Your task to perform on an android device: see tabs open on other devices in the chrome app Image 0: 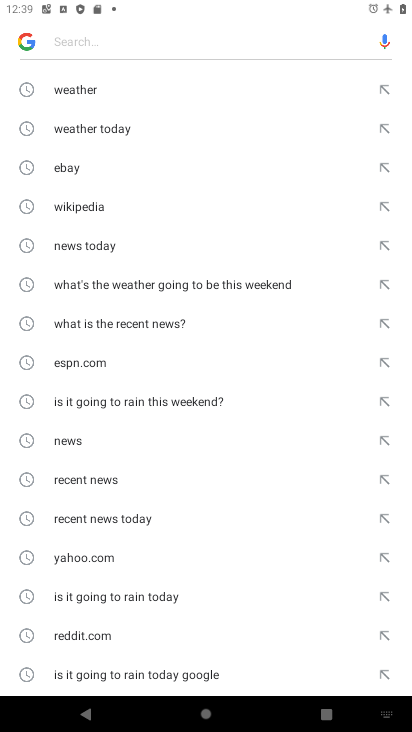
Step 0: press home button
Your task to perform on an android device: see tabs open on other devices in the chrome app Image 1: 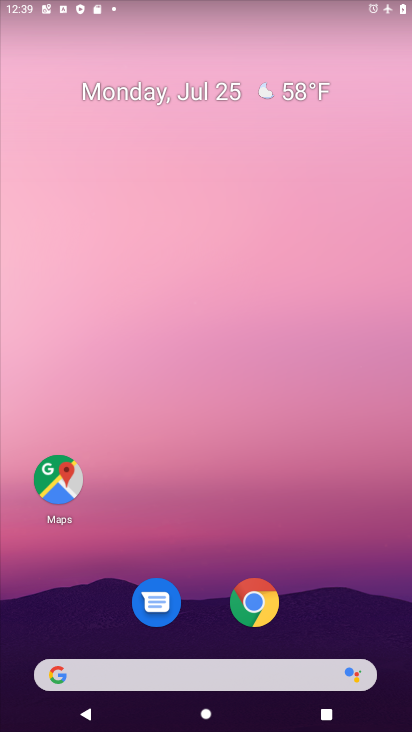
Step 1: click (271, 624)
Your task to perform on an android device: see tabs open on other devices in the chrome app Image 2: 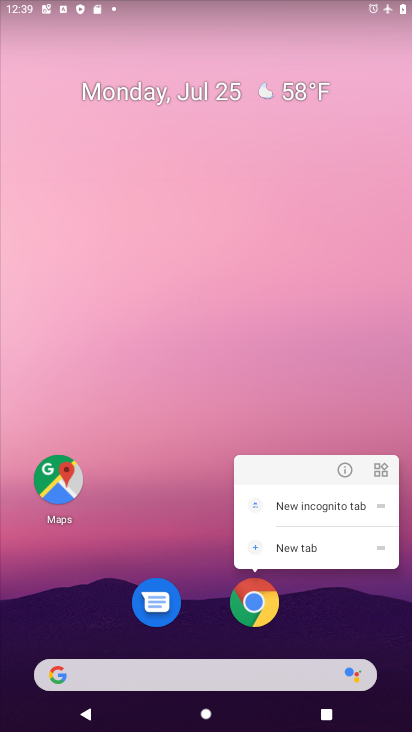
Step 2: click (253, 612)
Your task to perform on an android device: see tabs open on other devices in the chrome app Image 3: 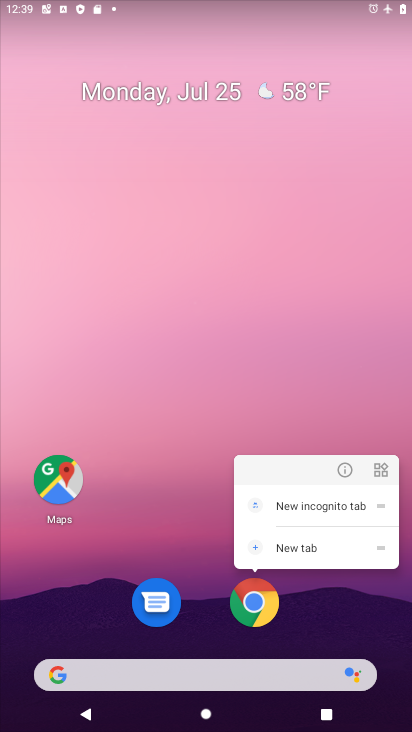
Step 3: click (248, 611)
Your task to perform on an android device: see tabs open on other devices in the chrome app Image 4: 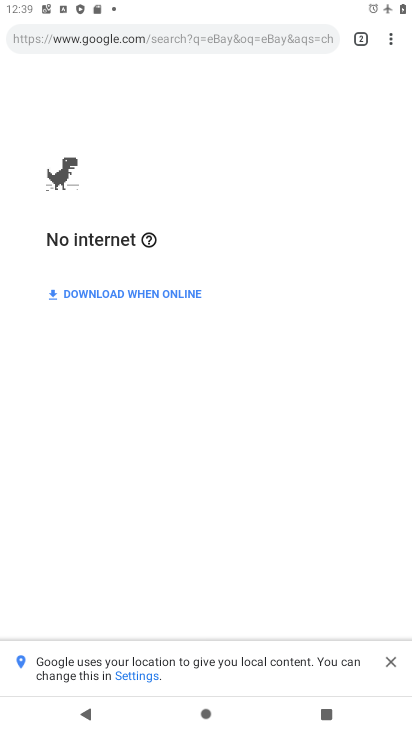
Step 4: click (400, 36)
Your task to perform on an android device: see tabs open on other devices in the chrome app Image 5: 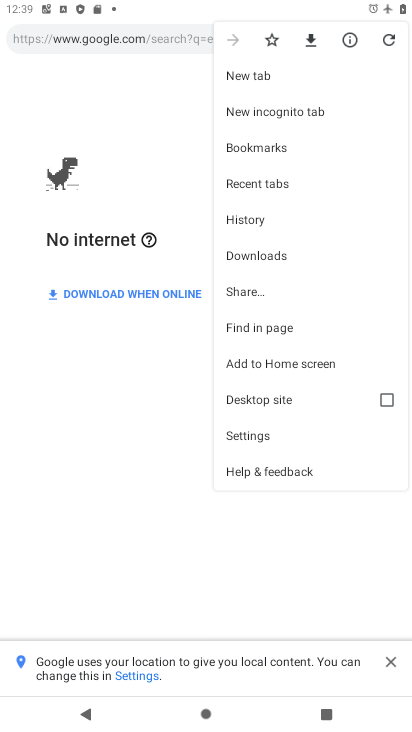
Step 5: click (288, 185)
Your task to perform on an android device: see tabs open on other devices in the chrome app Image 6: 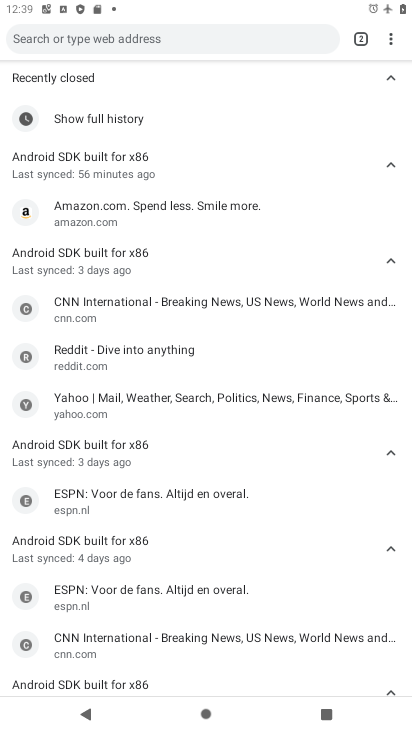
Step 6: task complete